Your task to perform on an android device: turn on priority inbox in the gmail app Image 0: 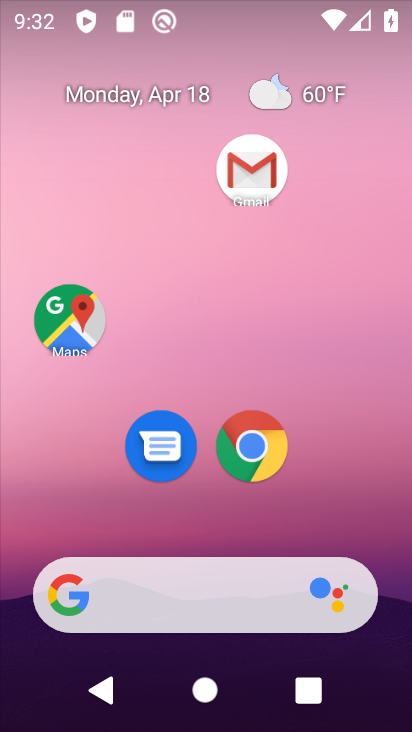
Step 0: click (272, 166)
Your task to perform on an android device: turn on priority inbox in the gmail app Image 1: 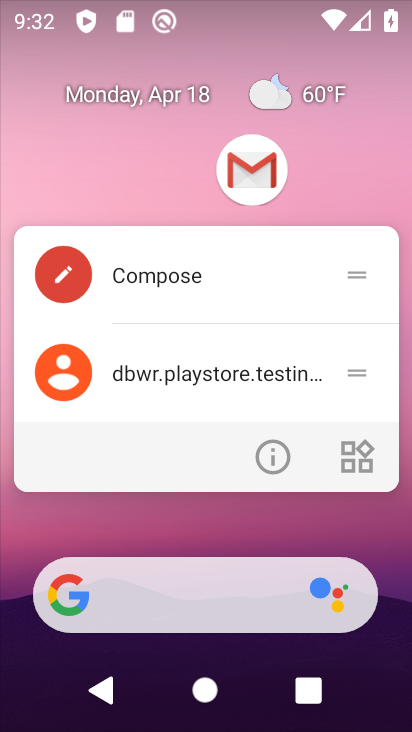
Step 1: click (247, 162)
Your task to perform on an android device: turn on priority inbox in the gmail app Image 2: 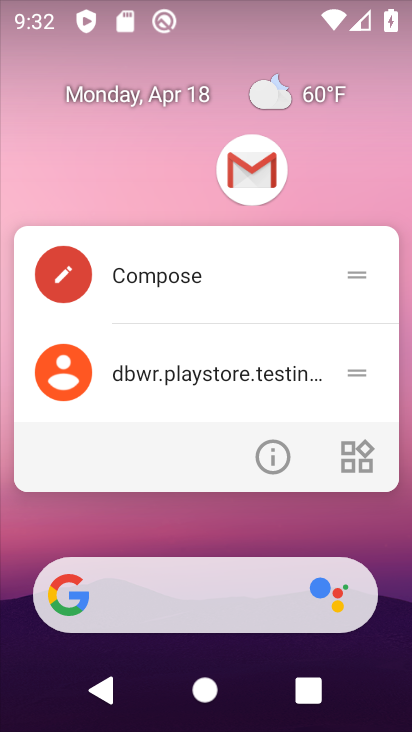
Step 2: click (280, 170)
Your task to perform on an android device: turn on priority inbox in the gmail app Image 3: 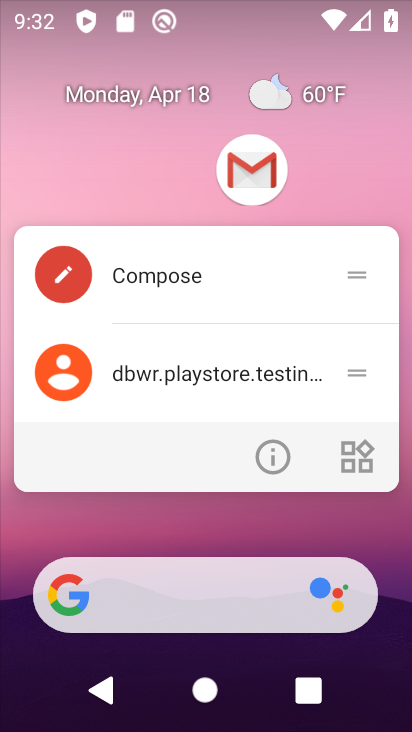
Step 3: click (249, 176)
Your task to perform on an android device: turn on priority inbox in the gmail app Image 4: 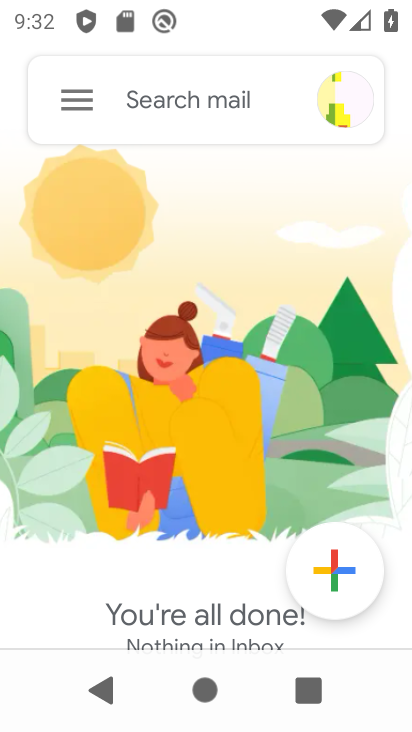
Step 4: click (77, 98)
Your task to perform on an android device: turn on priority inbox in the gmail app Image 5: 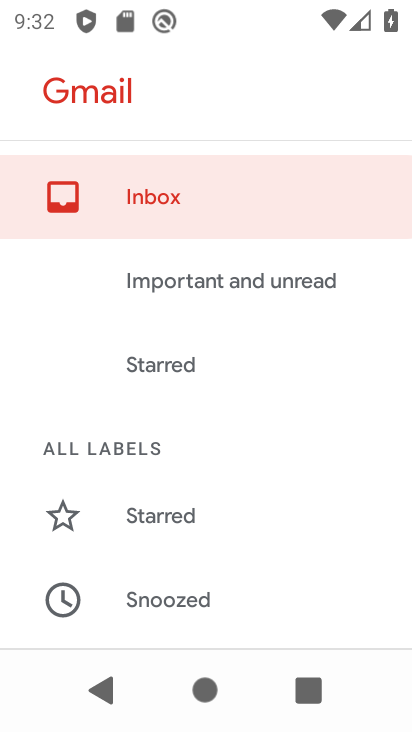
Step 5: drag from (282, 551) to (296, 106)
Your task to perform on an android device: turn on priority inbox in the gmail app Image 6: 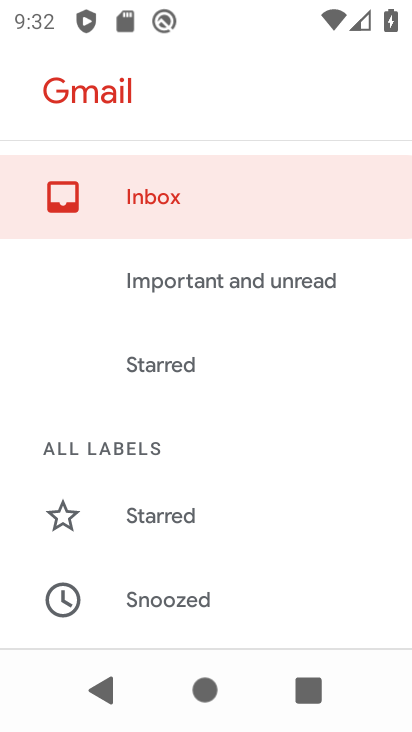
Step 6: drag from (271, 445) to (358, 57)
Your task to perform on an android device: turn on priority inbox in the gmail app Image 7: 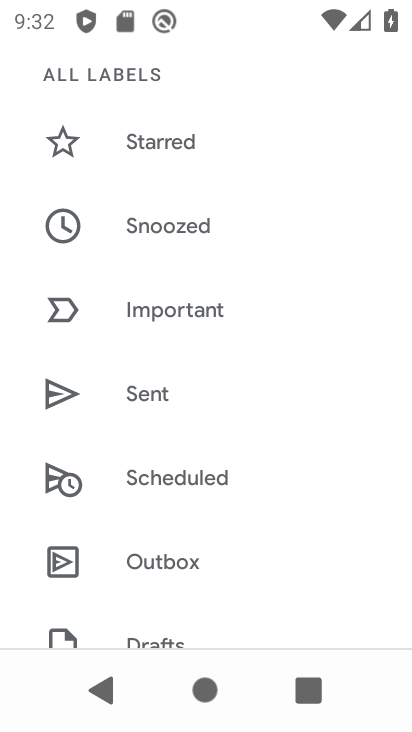
Step 7: drag from (248, 555) to (284, 111)
Your task to perform on an android device: turn on priority inbox in the gmail app Image 8: 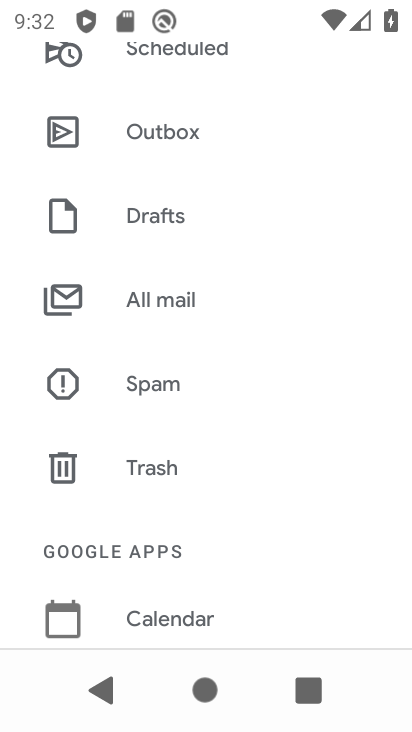
Step 8: drag from (217, 526) to (248, 128)
Your task to perform on an android device: turn on priority inbox in the gmail app Image 9: 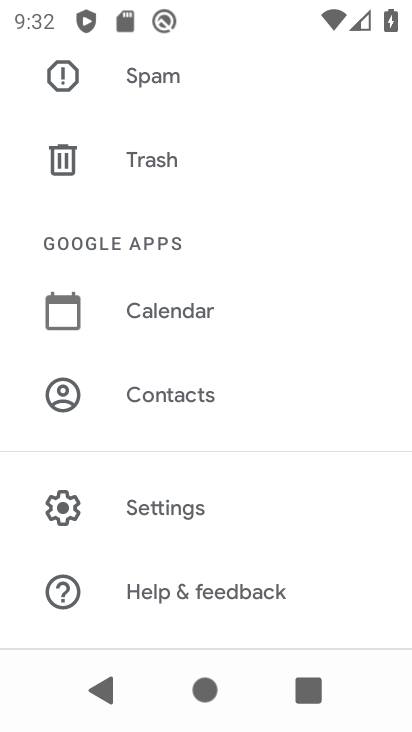
Step 9: click (185, 512)
Your task to perform on an android device: turn on priority inbox in the gmail app Image 10: 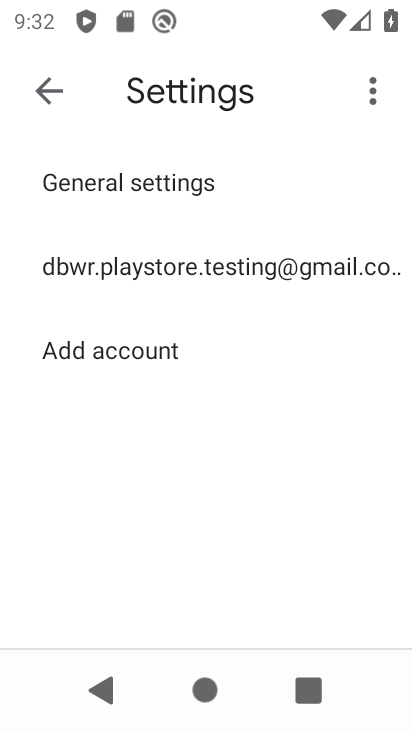
Step 10: click (253, 276)
Your task to perform on an android device: turn on priority inbox in the gmail app Image 11: 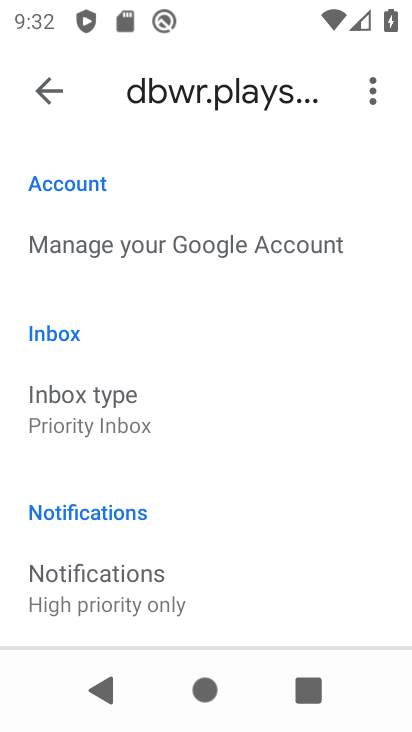
Step 11: task complete